Your task to perform on an android device: visit the assistant section in the google photos Image 0: 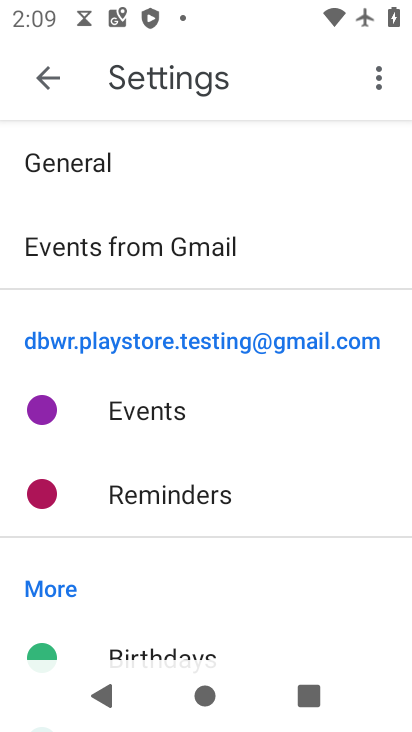
Step 0: press home button
Your task to perform on an android device: visit the assistant section in the google photos Image 1: 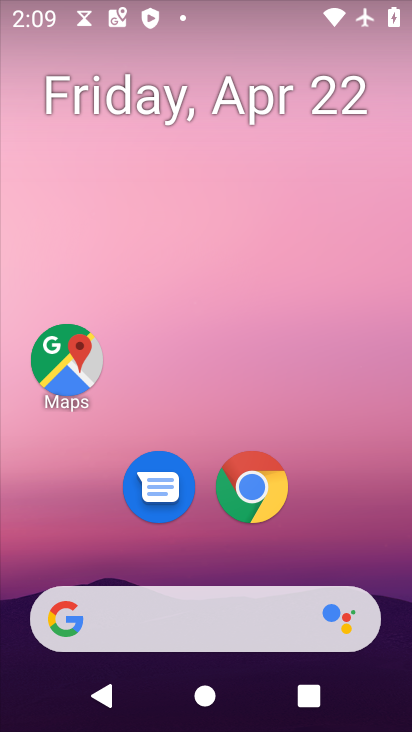
Step 1: drag from (157, 612) to (316, 112)
Your task to perform on an android device: visit the assistant section in the google photos Image 2: 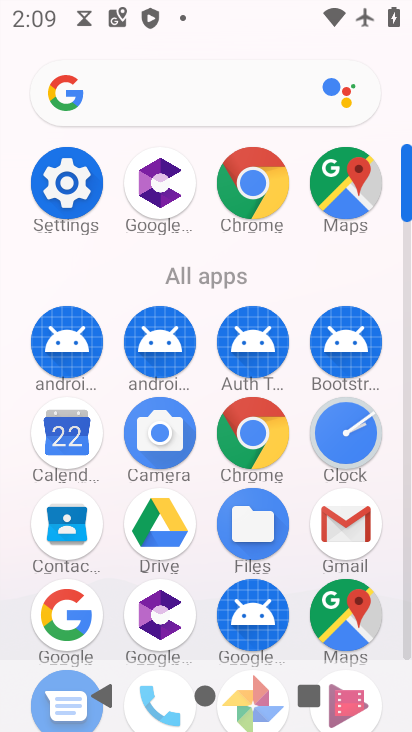
Step 2: drag from (218, 594) to (360, 230)
Your task to perform on an android device: visit the assistant section in the google photos Image 3: 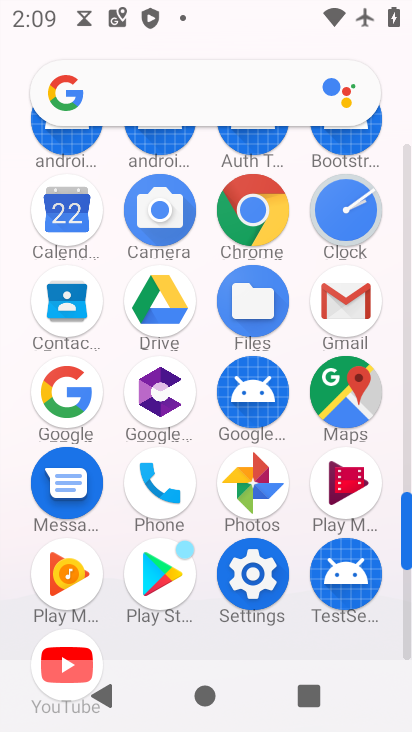
Step 3: click (262, 493)
Your task to perform on an android device: visit the assistant section in the google photos Image 4: 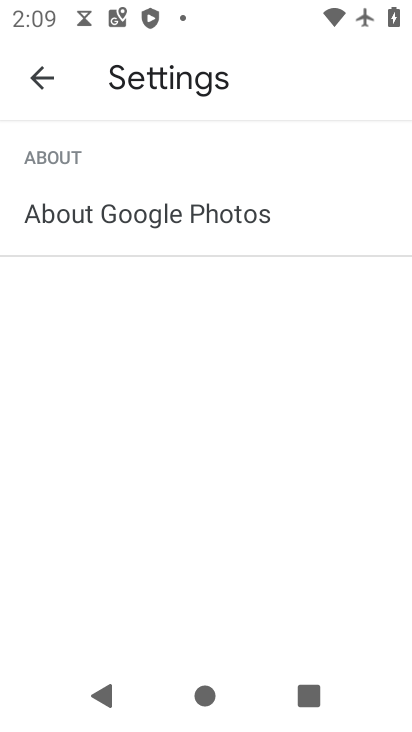
Step 4: click (45, 76)
Your task to perform on an android device: visit the assistant section in the google photos Image 5: 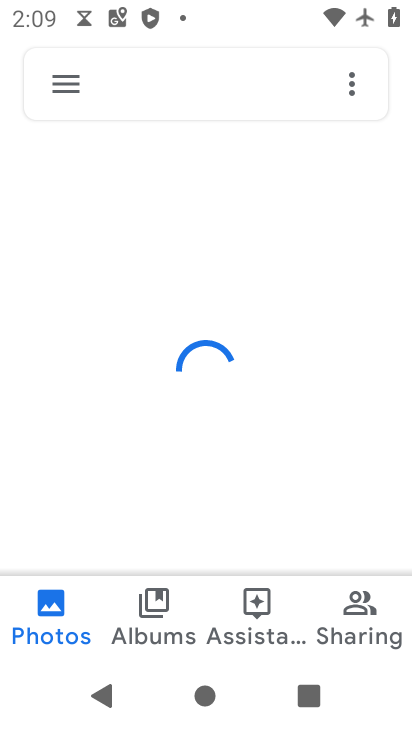
Step 5: click (242, 628)
Your task to perform on an android device: visit the assistant section in the google photos Image 6: 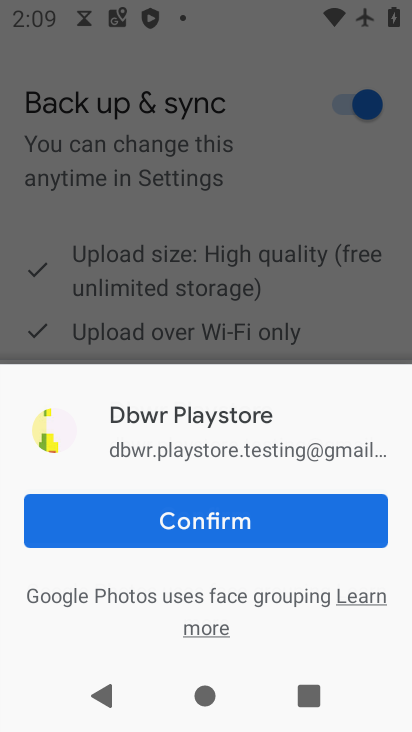
Step 6: click (228, 522)
Your task to perform on an android device: visit the assistant section in the google photos Image 7: 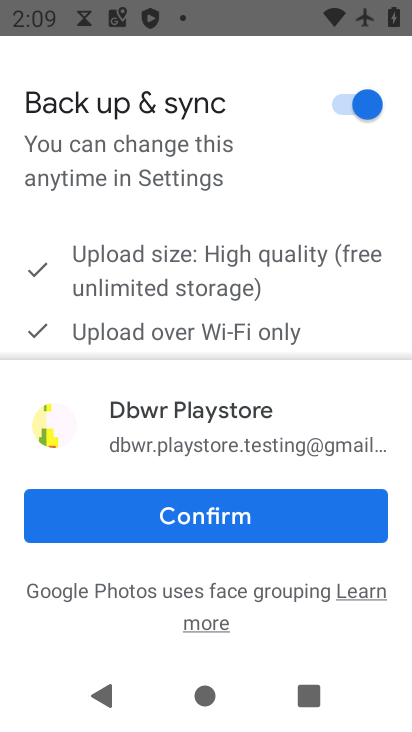
Step 7: click (228, 522)
Your task to perform on an android device: visit the assistant section in the google photos Image 8: 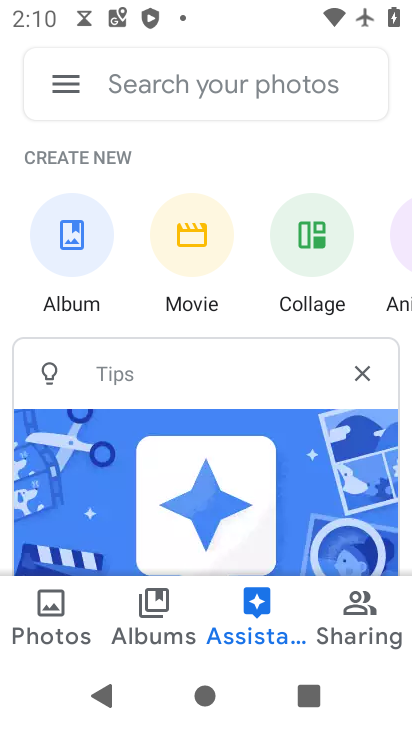
Step 8: task complete